Your task to perform on an android device: Search for the best books on Goodreads. Image 0: 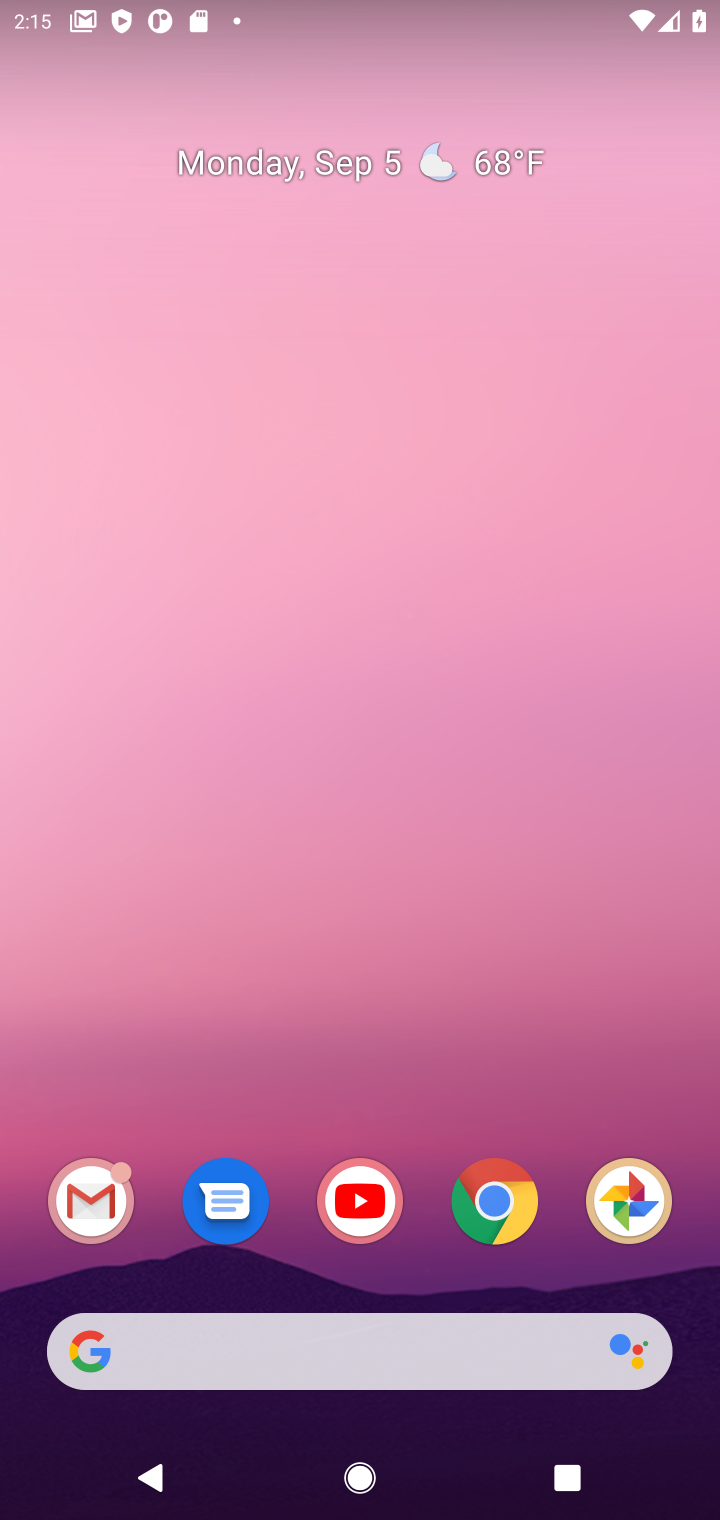
Step 0: click (494, 1218)
Your task to perform on an android device: Search for the best books on Goodreads. Image 1: 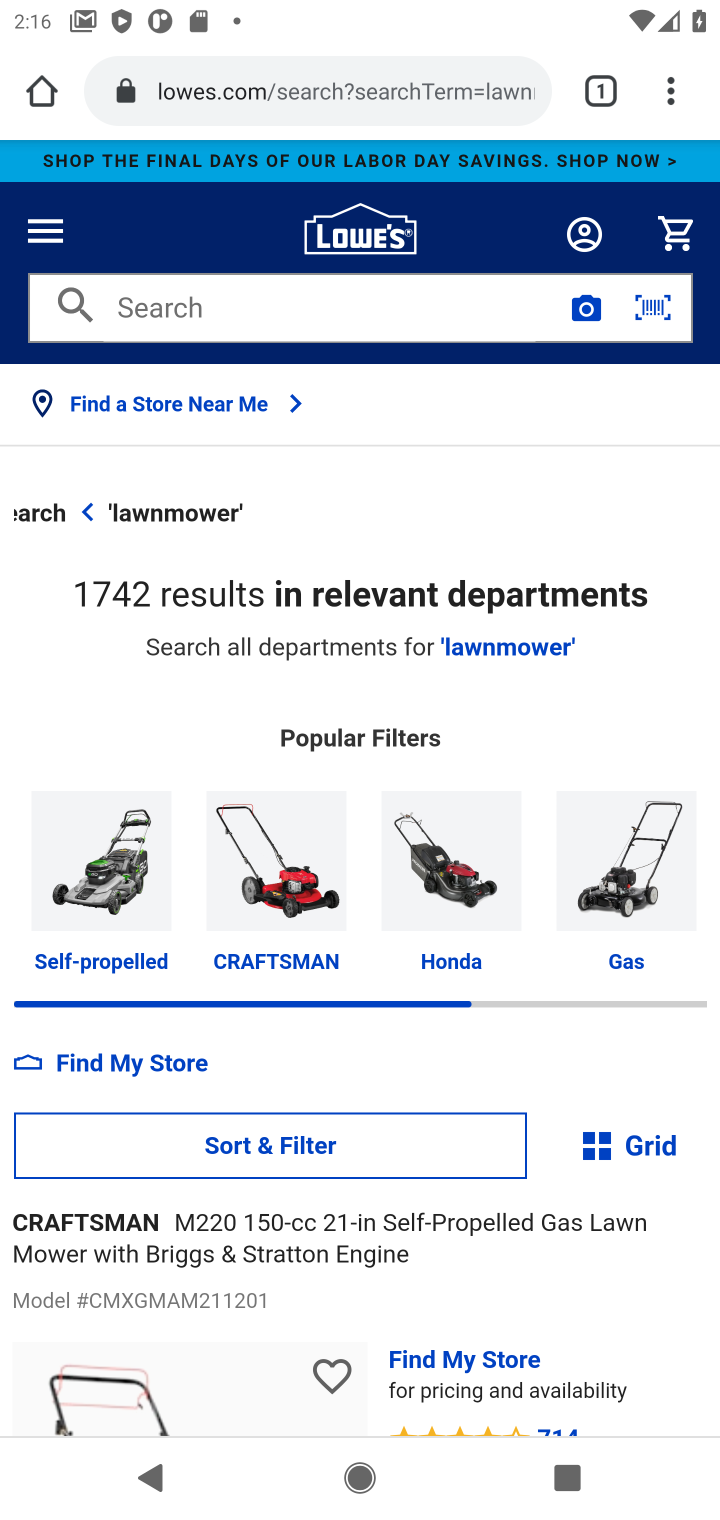
Step 1: click (371, 91)
Your task to perform on an android device: Search for the best books on Goodreads. Image 2: 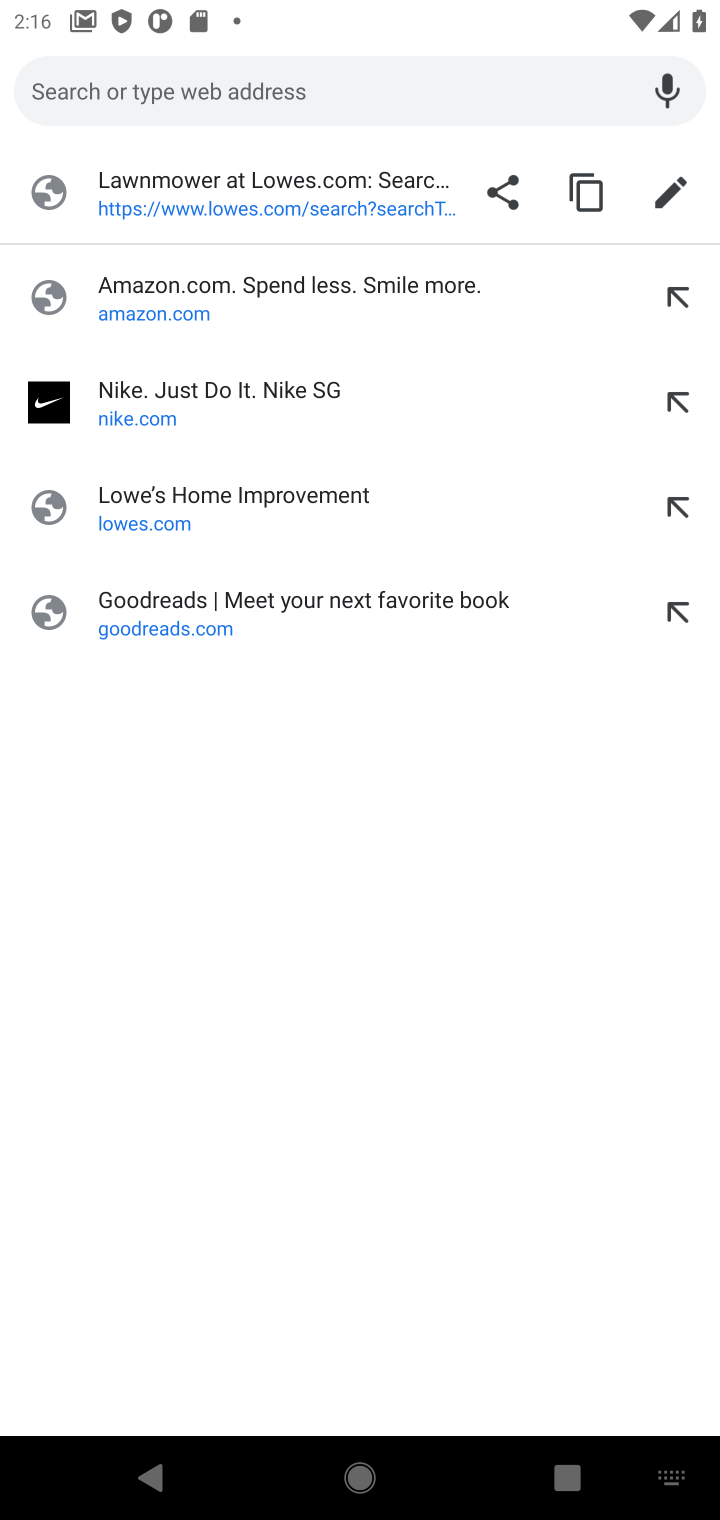
Step 2: type "Goodreads"
Your task to perform on an android device: Search for the best books on Goodreads. Image 3: 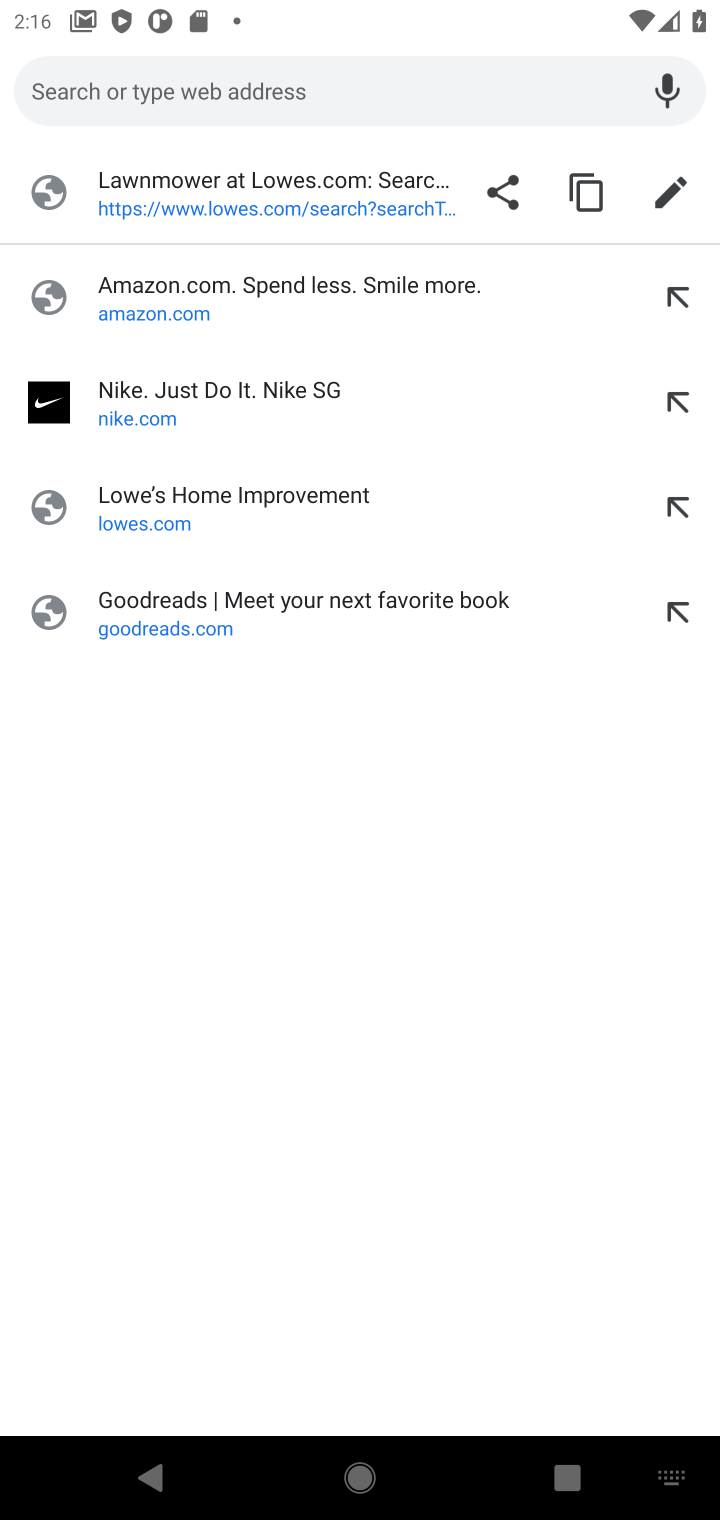
Step 3: click (167, 79)
Your task to perform on an android device: Search for the best books on Goodreads. Image 4: 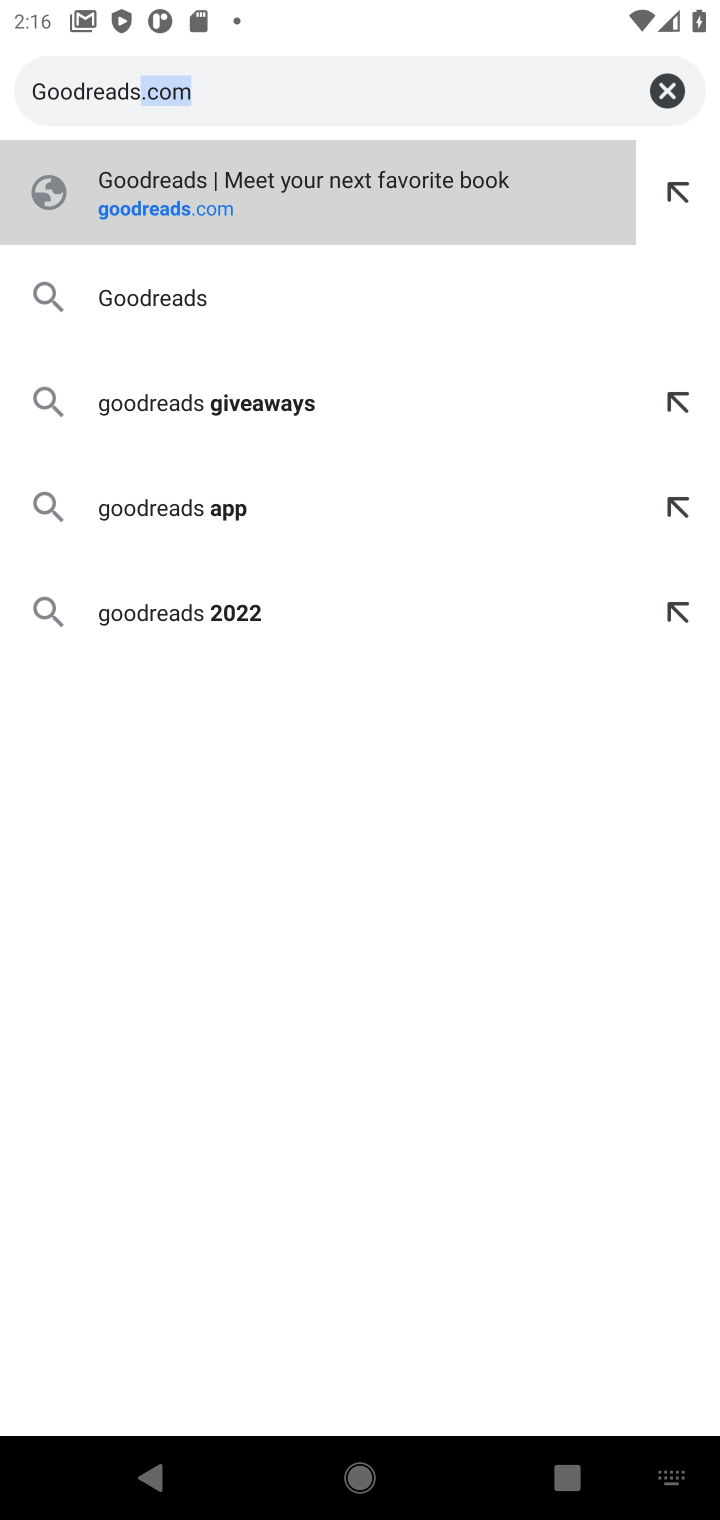
Step 4: press enter
Your task to perform on an android device: Search for the best books on Goodreads. Image 5: 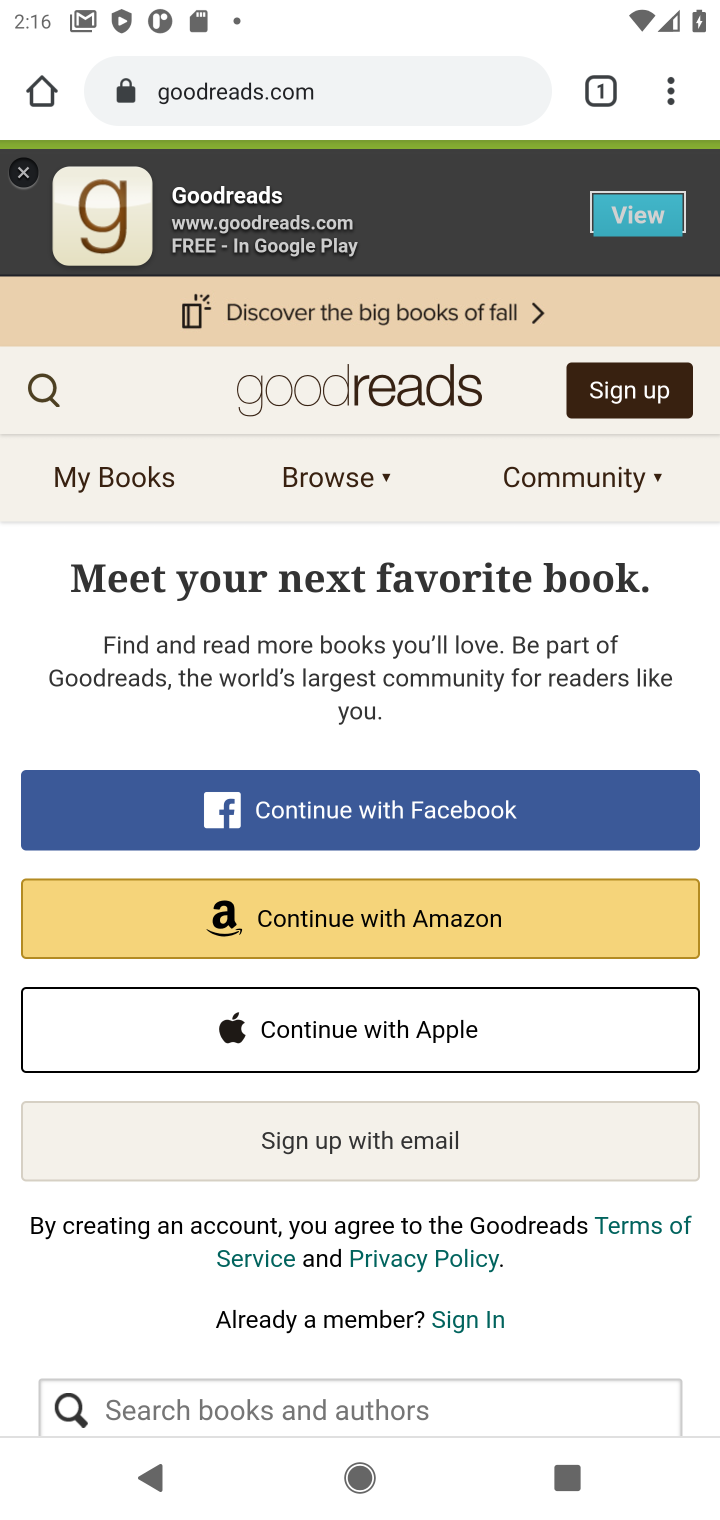
Step 5: click (33, 388)
Your task to perform on an android device: Search for the best books on Goodreads. Image 6: 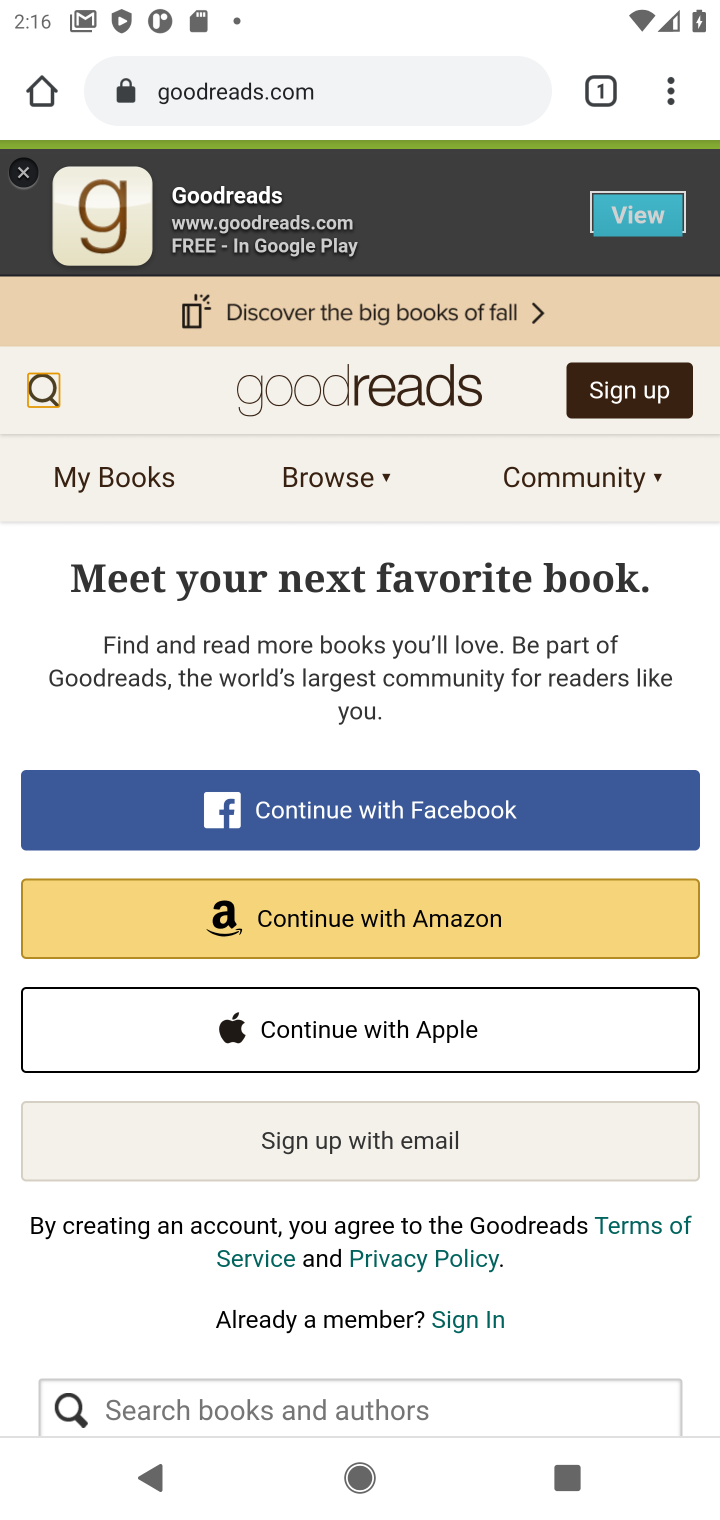
Step 6: click (53, 390)
Your task to perform on an android device: Search for the best books on Goodreads. Image 7: 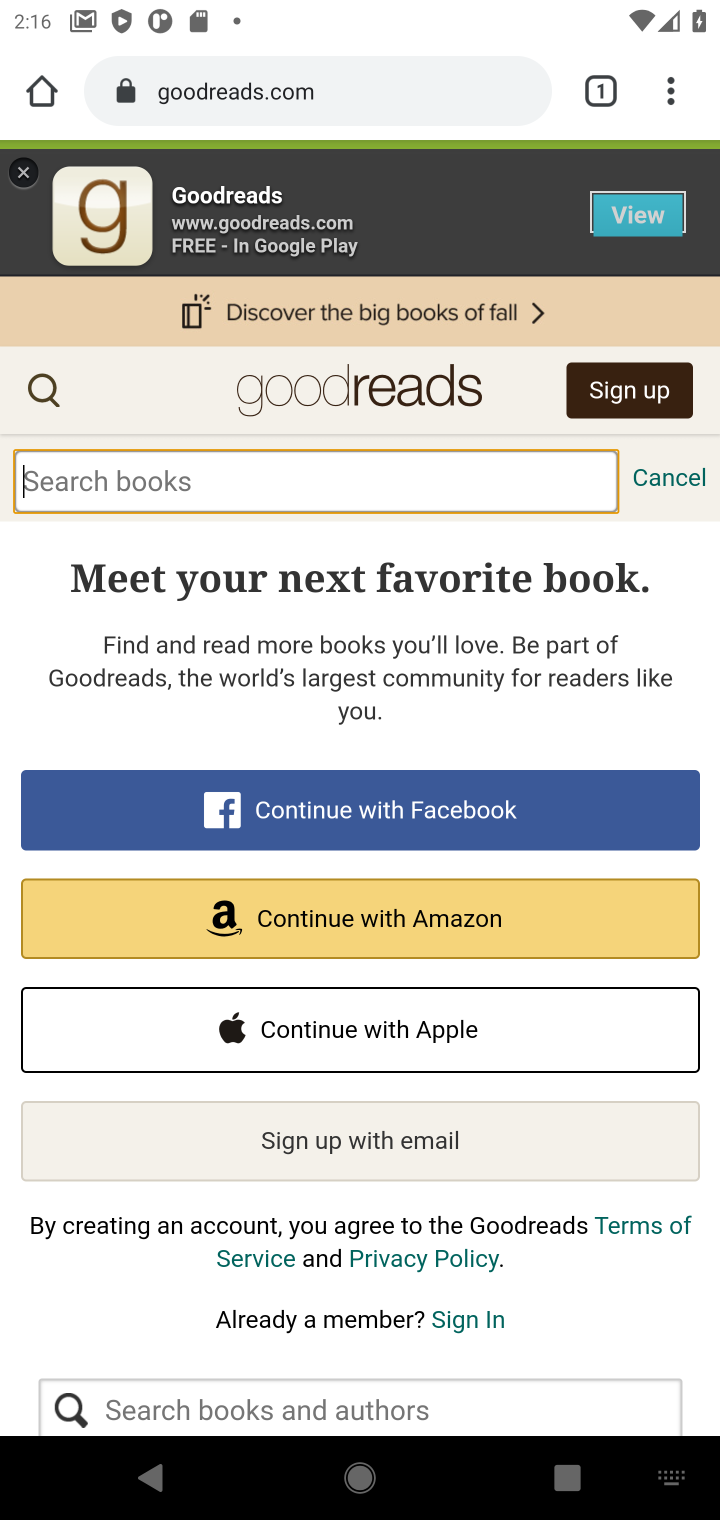
Step 7: type " best books"
Your task to perform on an android device: Search for the best books on Goodreads. Image 8: 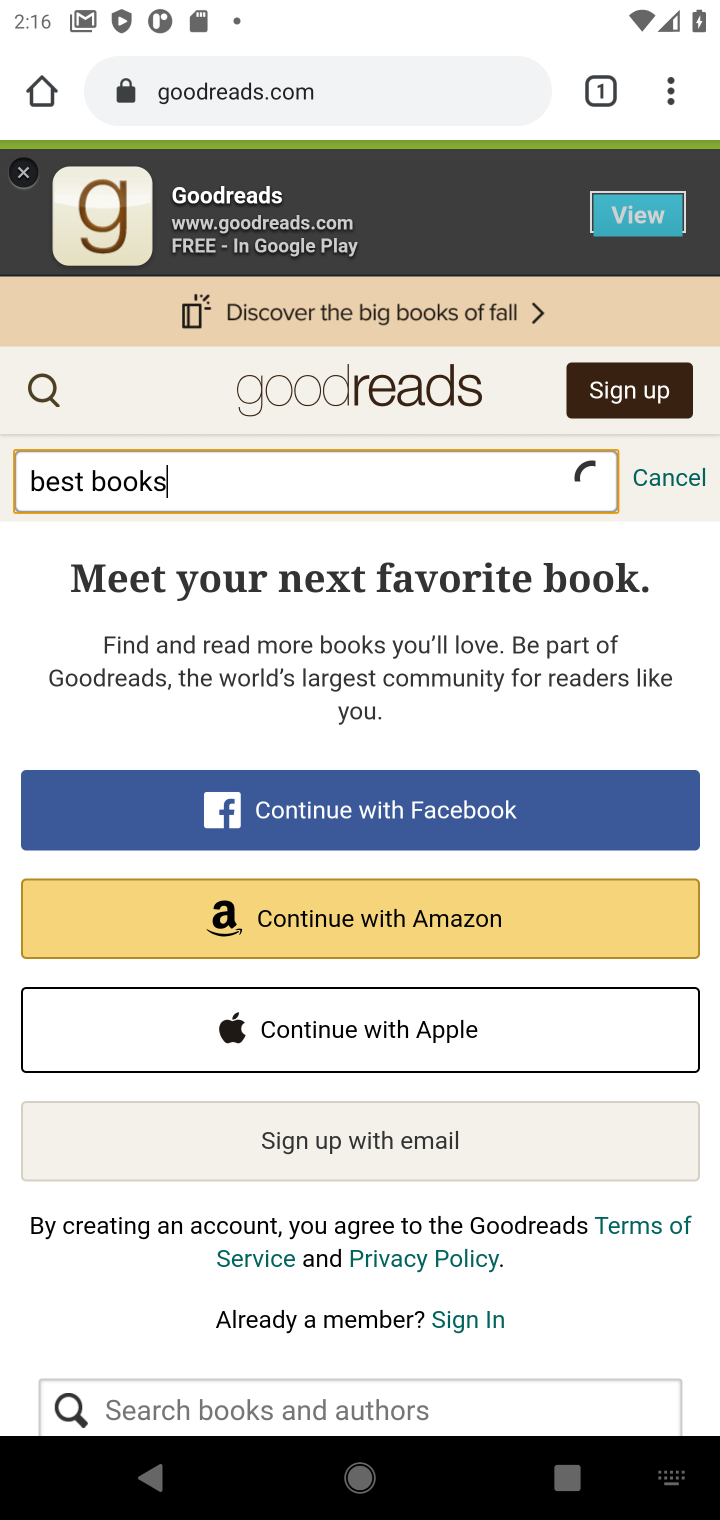
Step 8: press enter
Your task to perform on an android device: Search for the best books on Goodreads. Image 9: 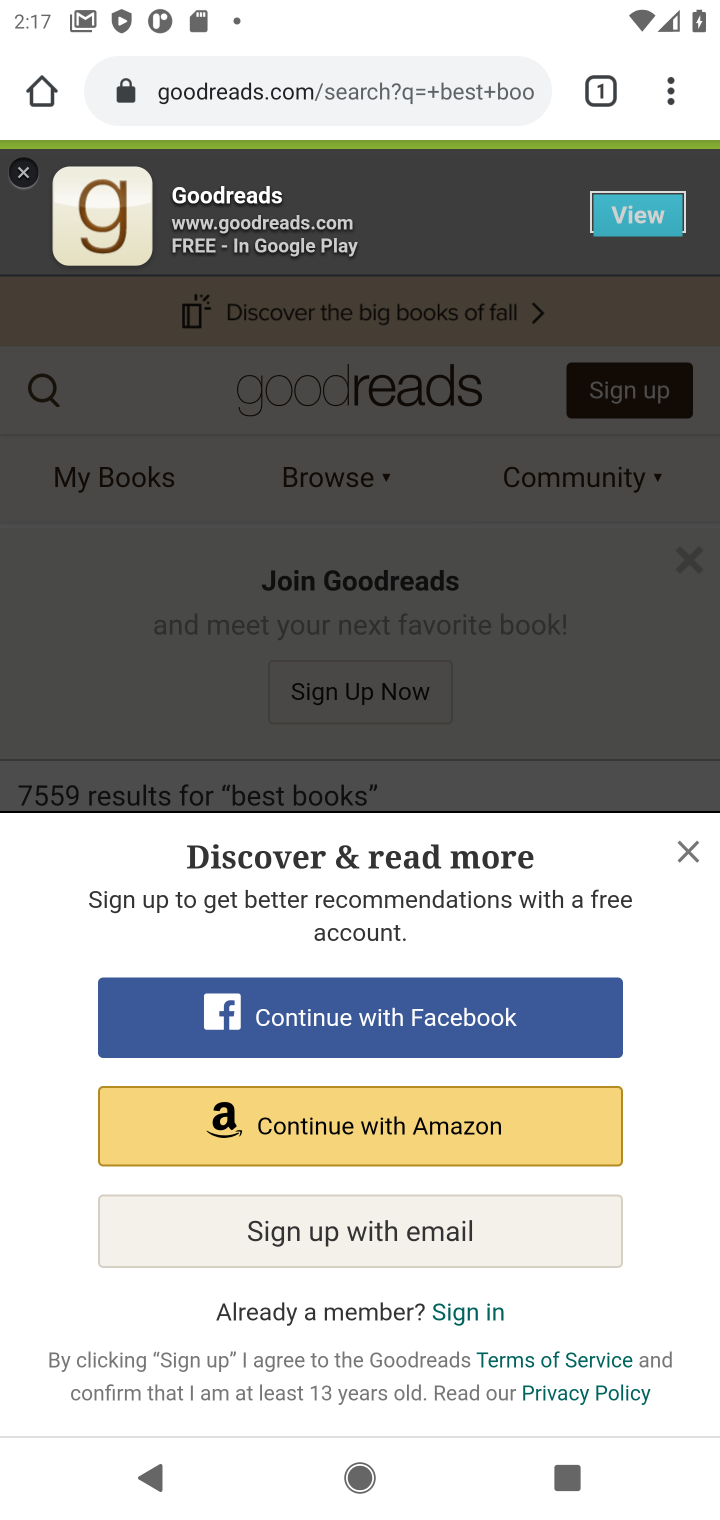
Step 9: click (677, 830)
Your task to perform on an android device: Search for the best books on Goodreads. Image 10: 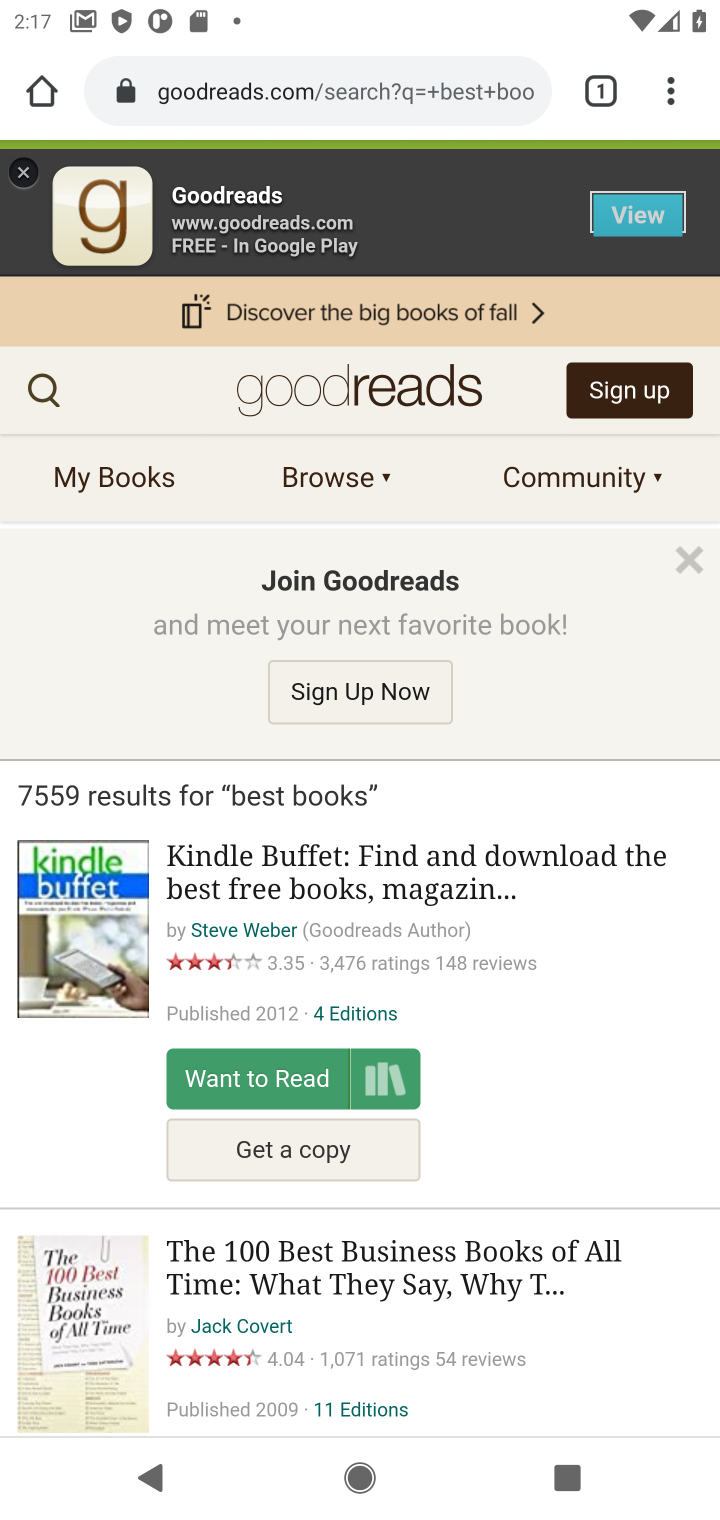
Step 10: task complete